Your task to perform on an android device: check out phone information Image 0: 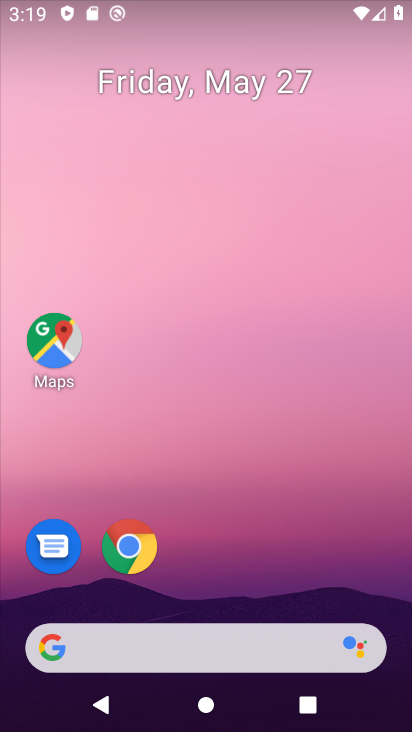
Step 0: drag from (265, 527) to (335, 104)
Your task to perform on an android device: check out phone information Image 1: 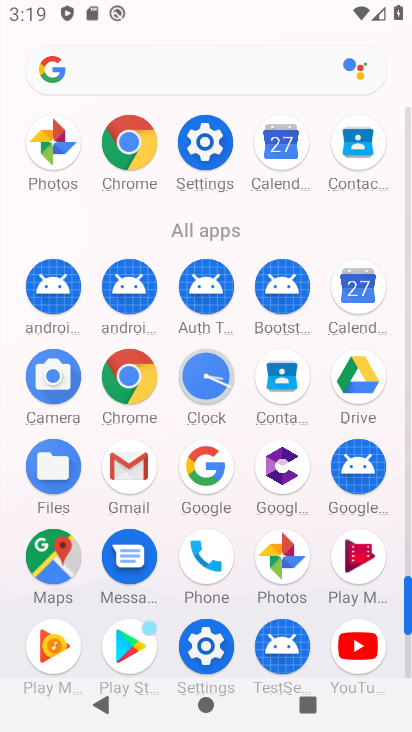
Step 1: drag from (197, 520) to (253, 320)
Your task to perform on an android device: check out phone information Image 2: 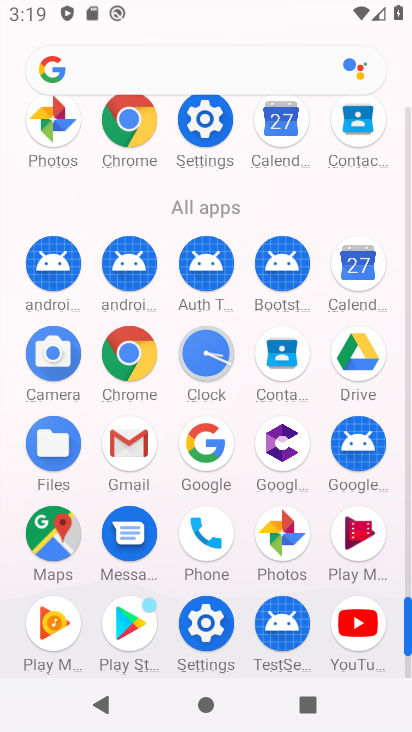
Step 2: click (213, 640)
Your task to perform on an android device: check out phone information Image 3: 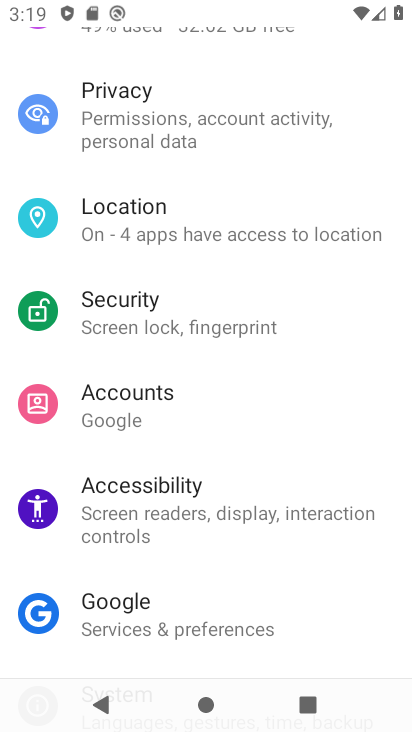
Step 3: drag from (196, 639) to (289, 214)
Your task to perform on an android device: check out phone information Image 4: 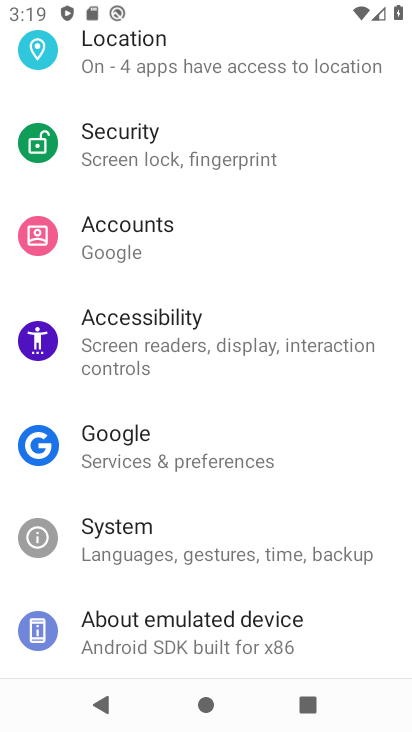
Step 4: click (232, 630)
Your task to perform on an android device: check out phone information Image 5: 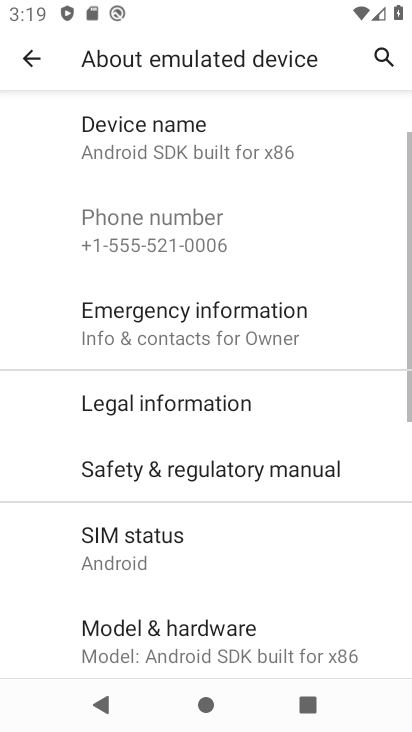
Step 5: task complete